Your task to perform on an android device: check the backup settings in the google photos Image 0: 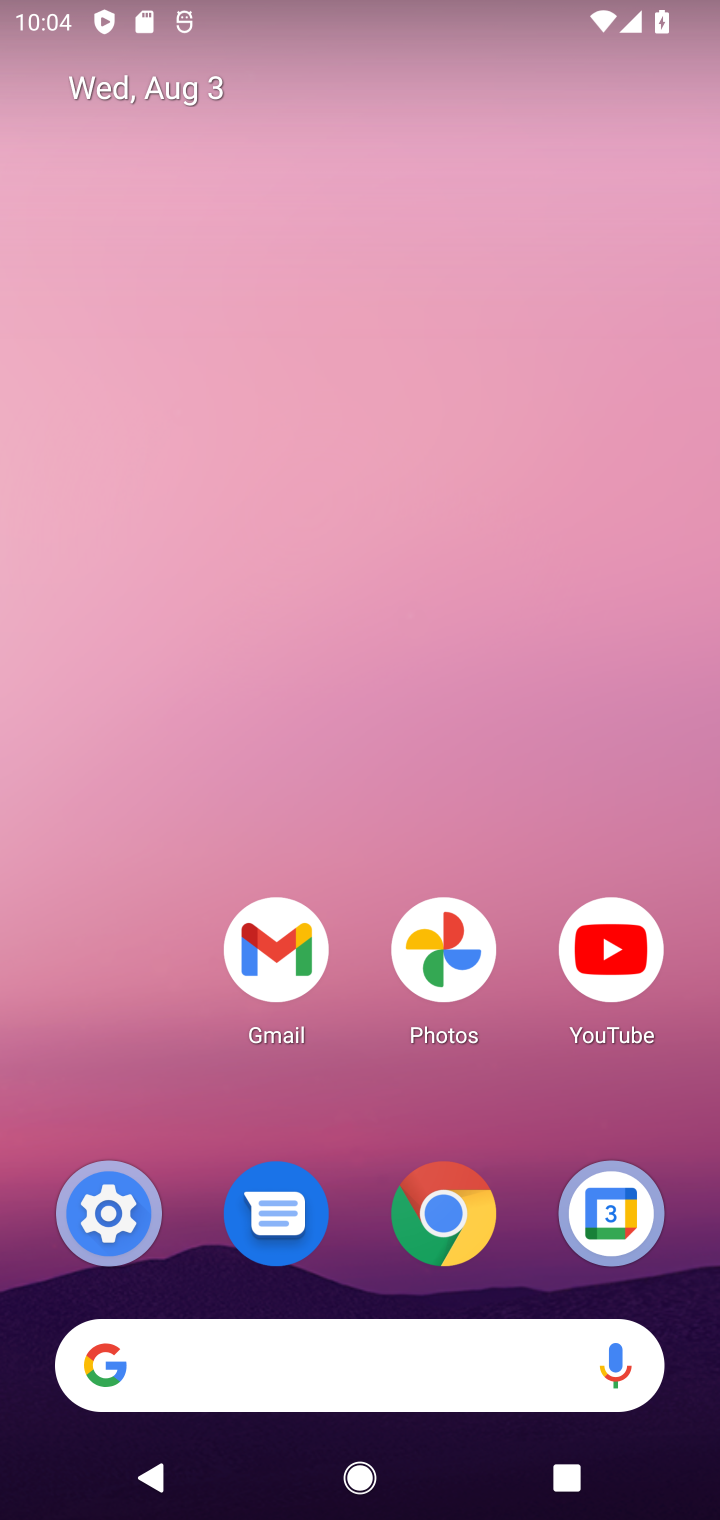
Step 0: drag from (373, 1089) to (361, 427)
Your task to perform on an android device: check the backup settings in the google photos Image 1: 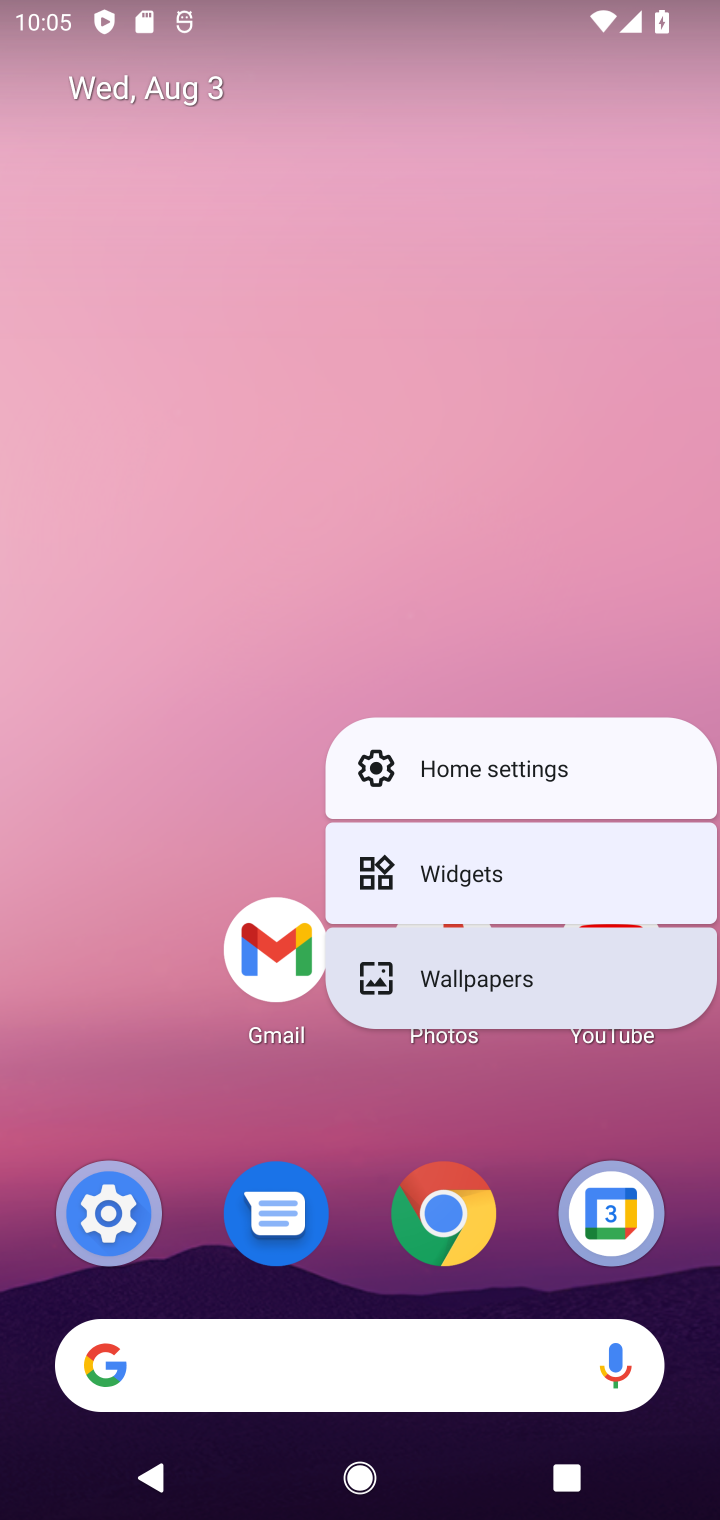
Step 1: click (240, 801)
Your task to perform on an android device: check the backup settings in the google photos Image 2: 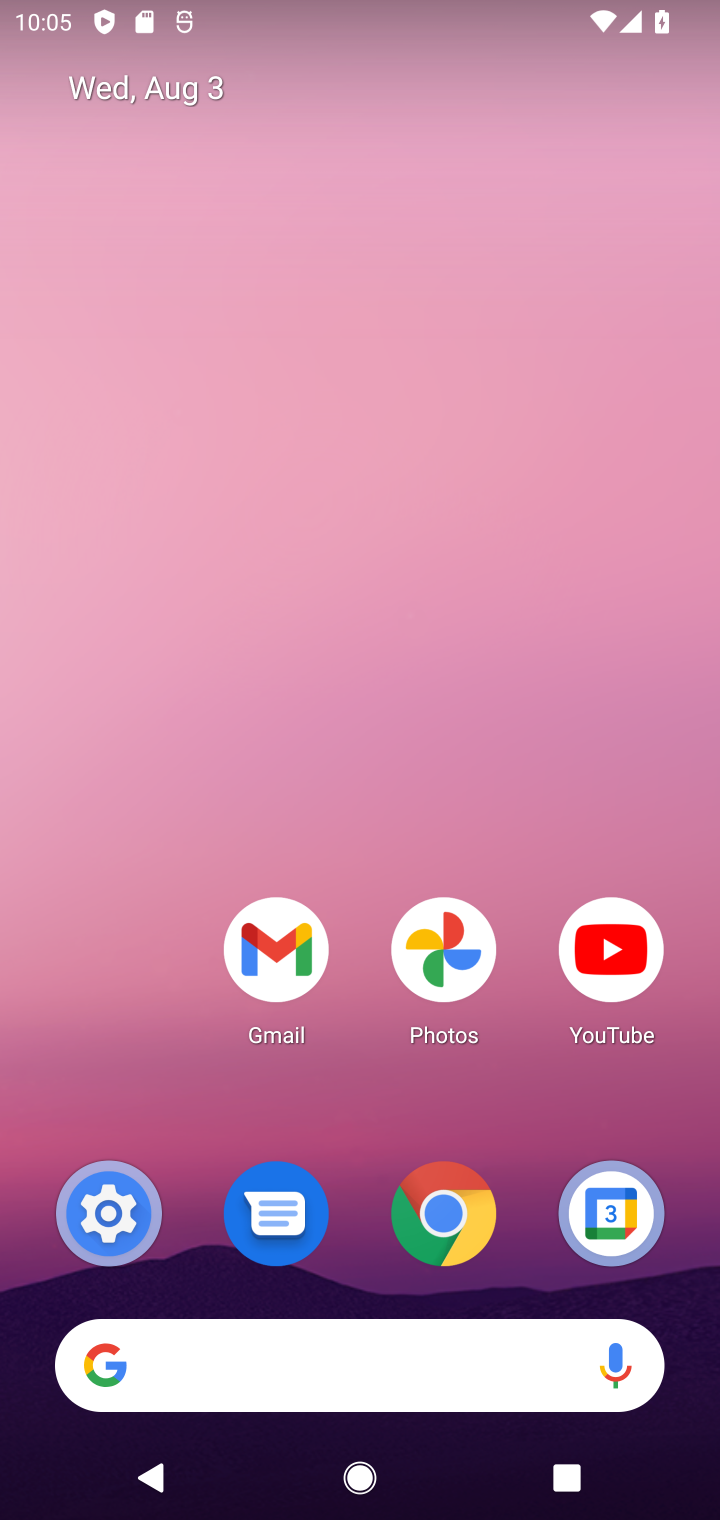
Step 2: click (435, 944)
Your task to perform on an android device: check the backup settings in the google photos Image 3: 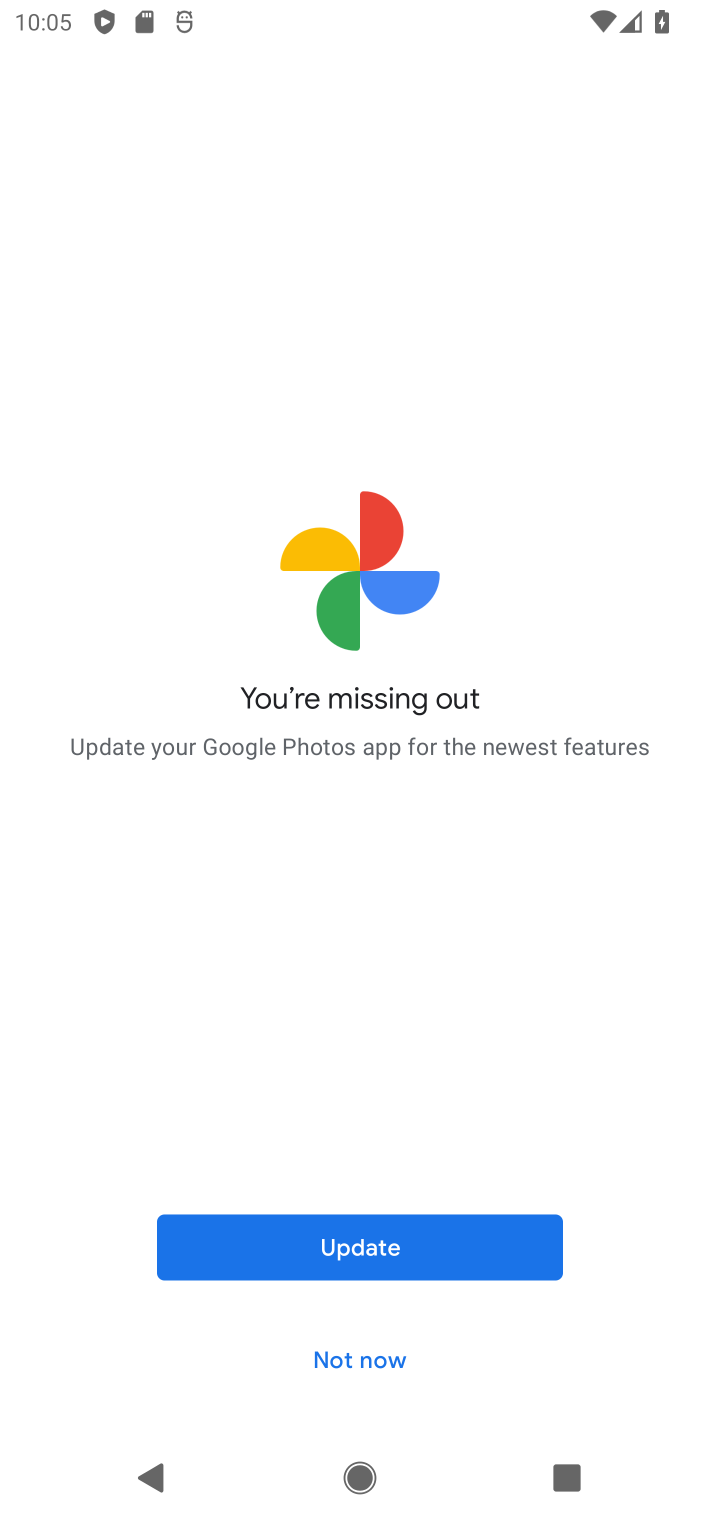
Step 3: click (325, 1351)
Your task to perform on an android device: check the backup settings in the google photos Image 4: 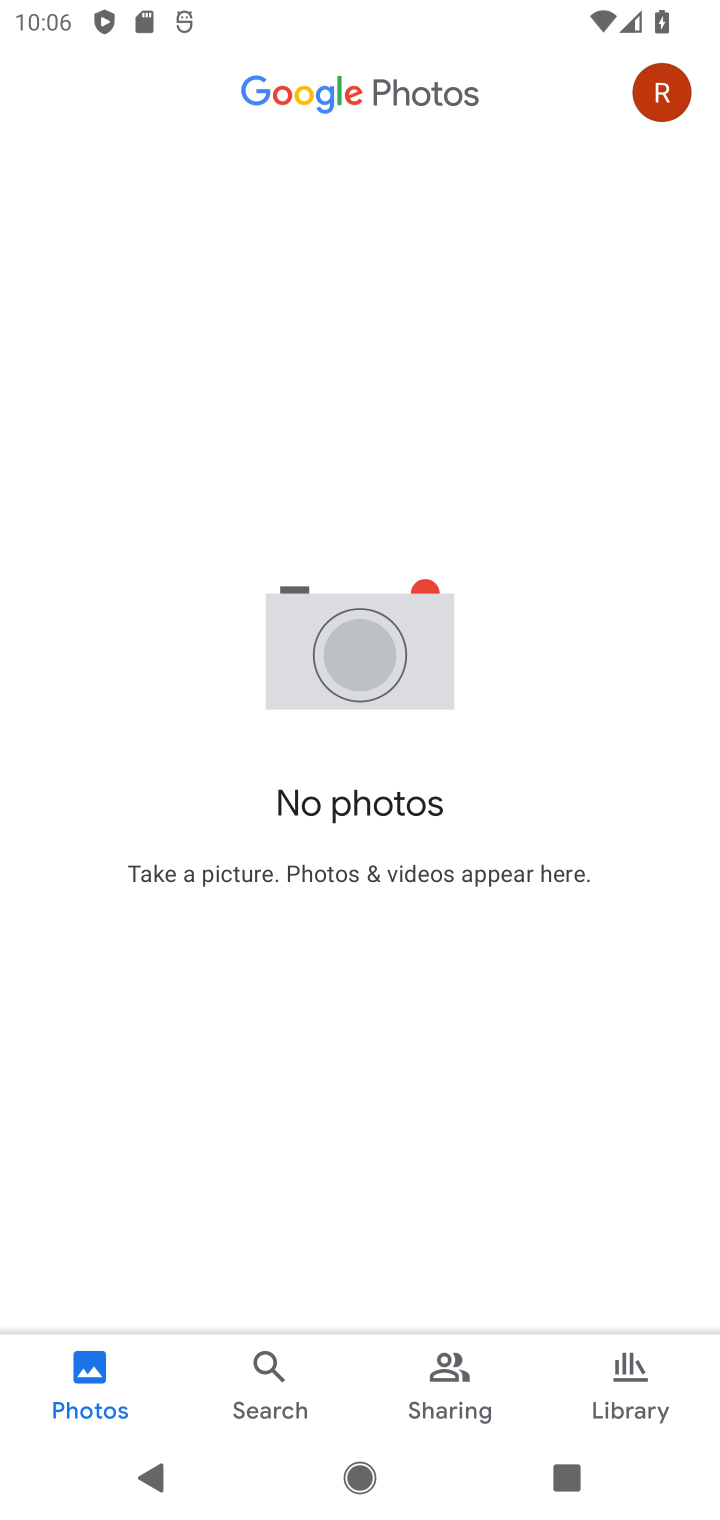
Step 4: click (671, 76)
Your task to perform on an android device: check the backup settings in the google photos Image 5: 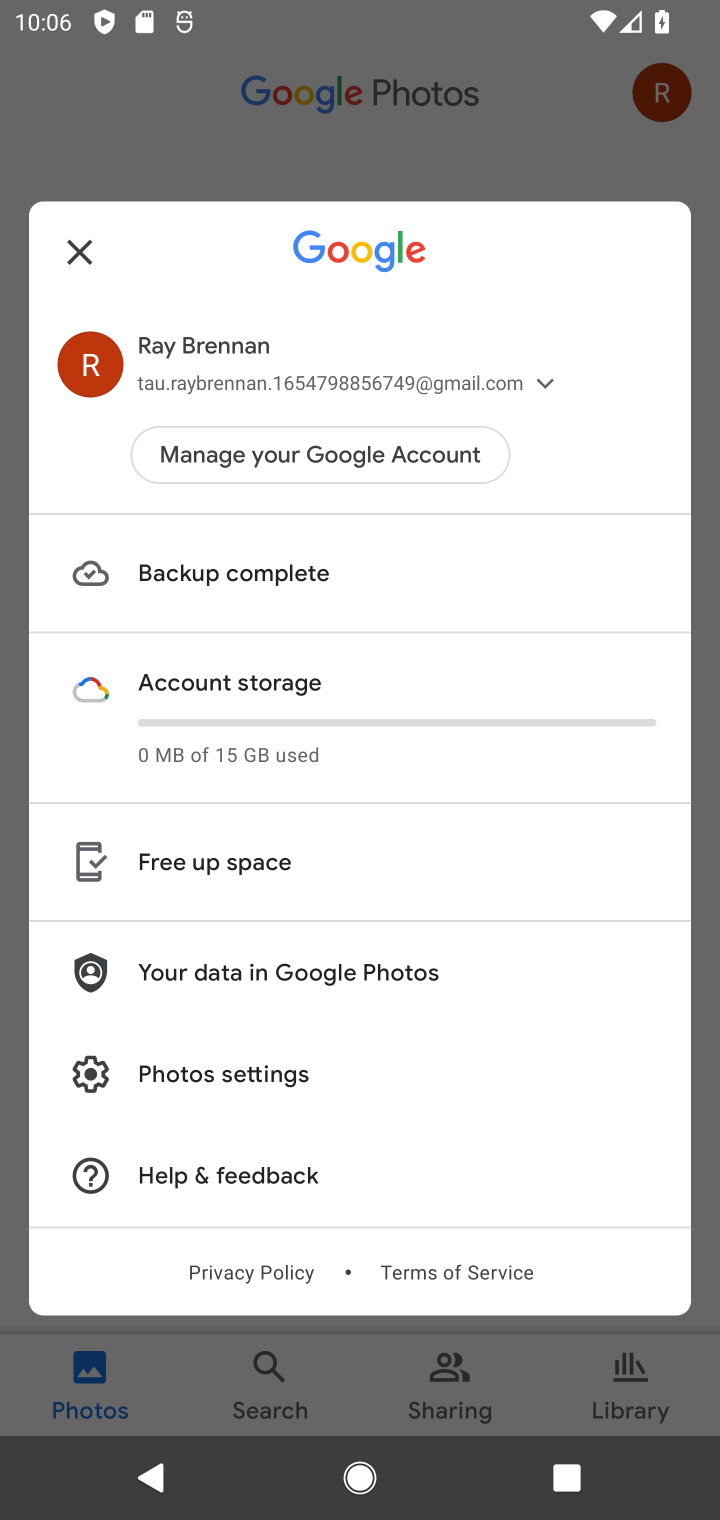
Step 5: click (274, 1071)
Your task to perform on an android device: check the backup settings in the google photos Image 6: 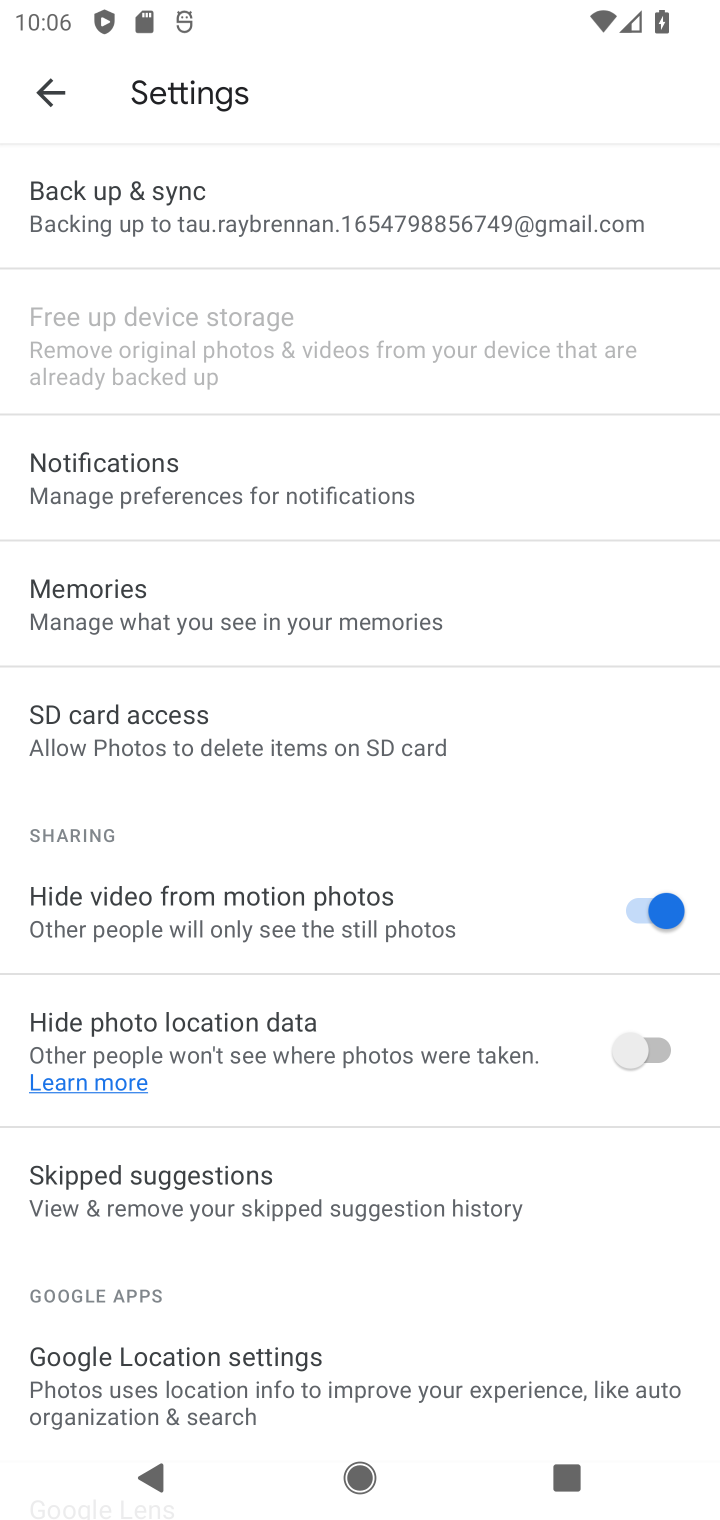
Step 6: click (261, 221)
Your task to perform on an android device: check the backup settings in the google photos Image 7: 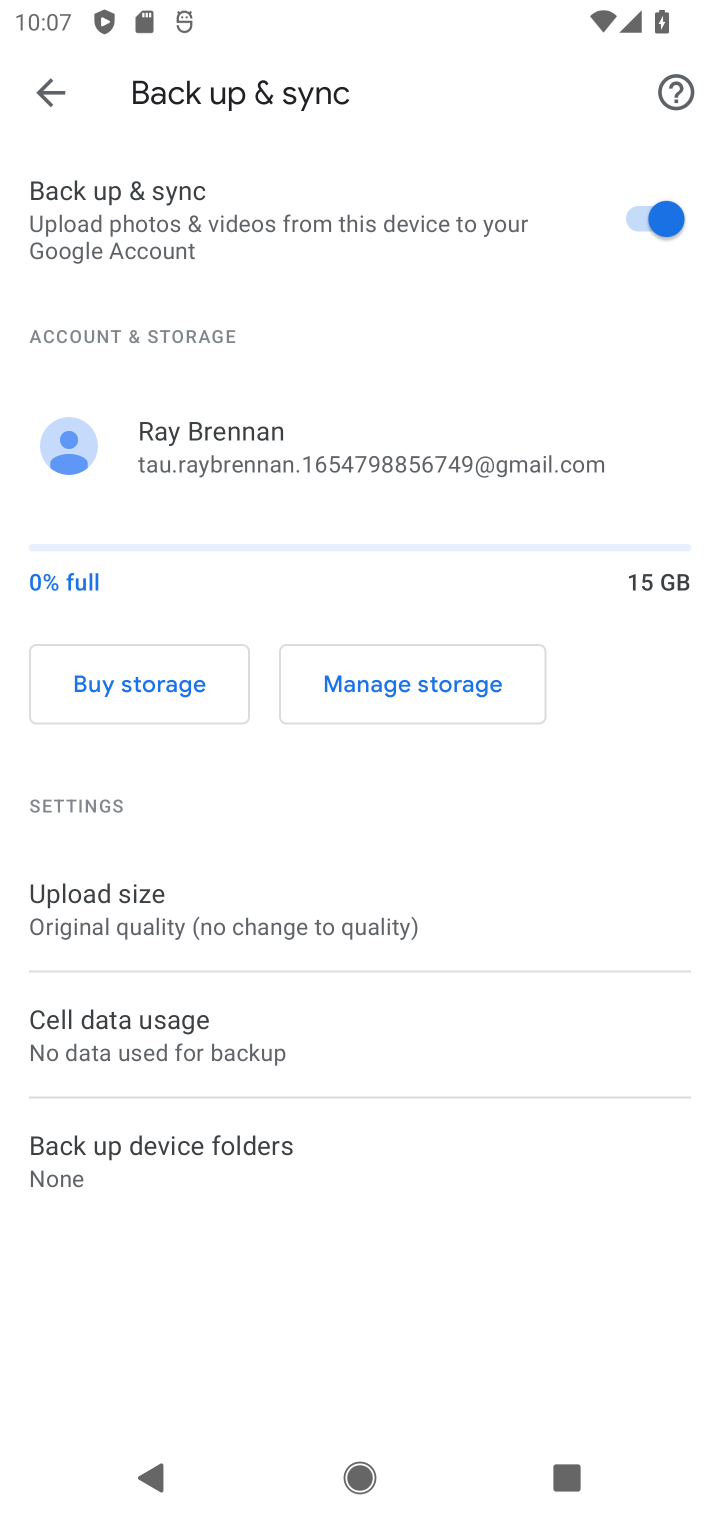
Step 7: click (190, 204)
Your task to perform on an android device: check the backup settings in the google photos Image 8: 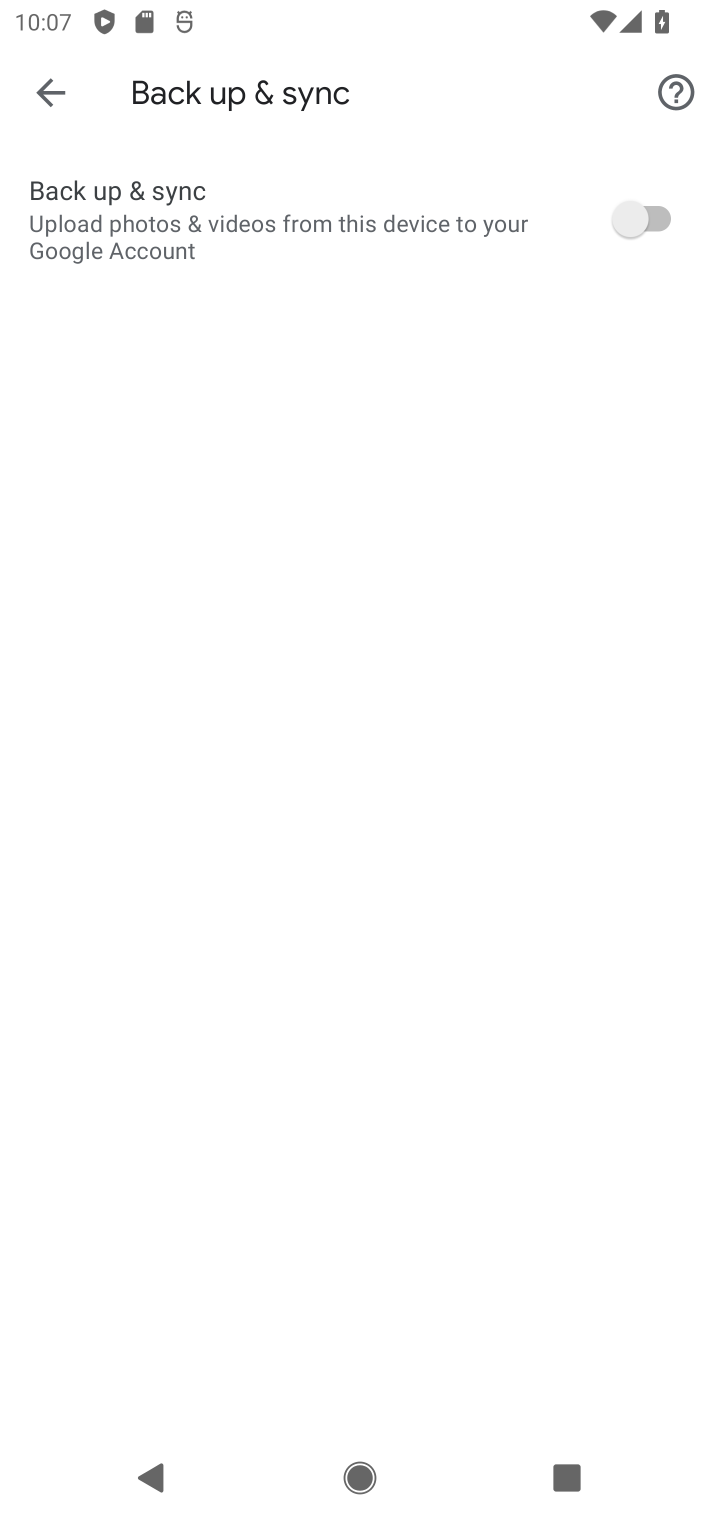
Step 8: task complete